Your task to perform on an android device: stop showing notifications on the lock screen Image 0: 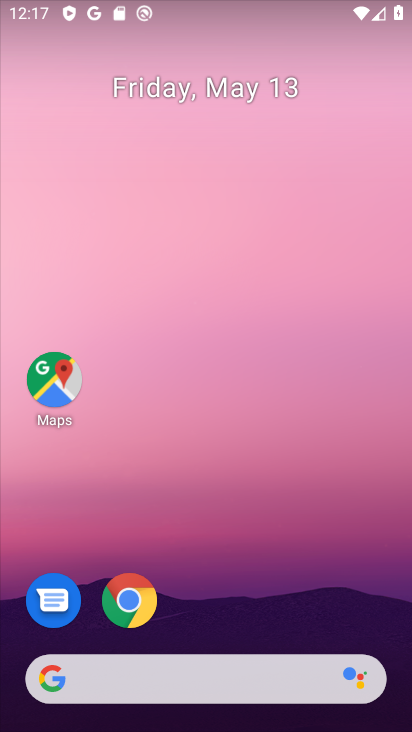
Step 0: drag from (187, 654) to (236, 112)
Your task to perform on an android device: stop showing notifications on the lock screen Image 1: 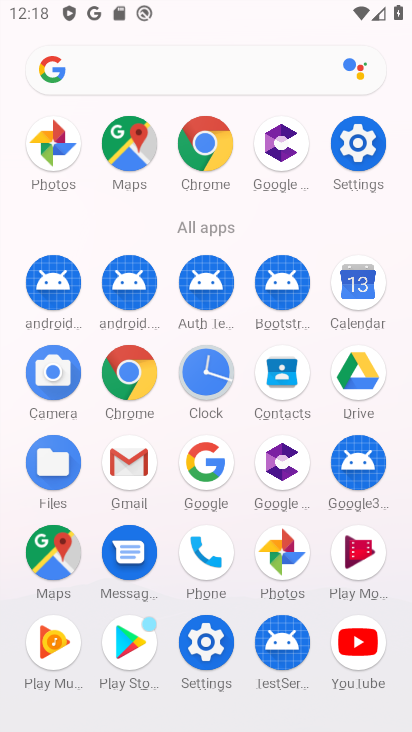
Step 1: click (351, 146)
Your task to perform on an android device: stop showing notifications on the lock screen Image 2: 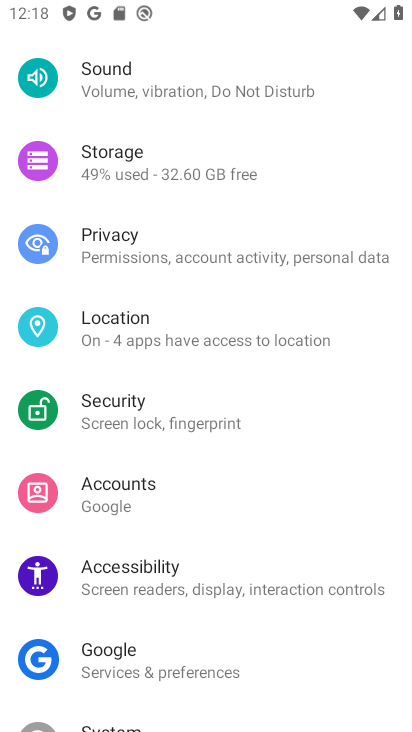
Step 2: drag from (179, 557) to (214, 111)
Your task to perform on an android device: stop showing notifications on the lock screen Image 3: 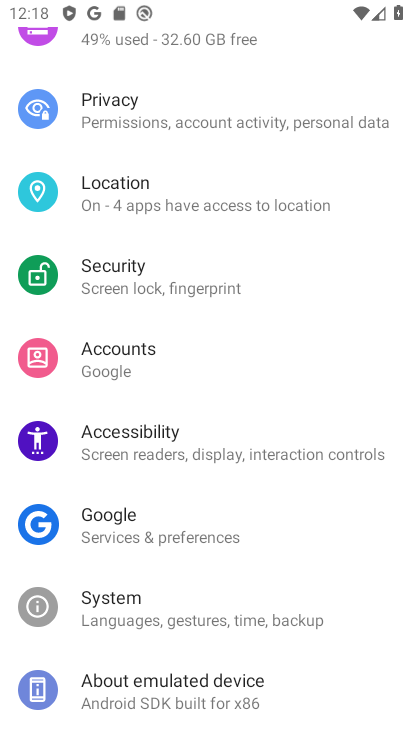
Step 3: drag from (170, 665) to (179, 236)
Your task to perform on an android device: stop showing notifications on the lock screen Image 4: 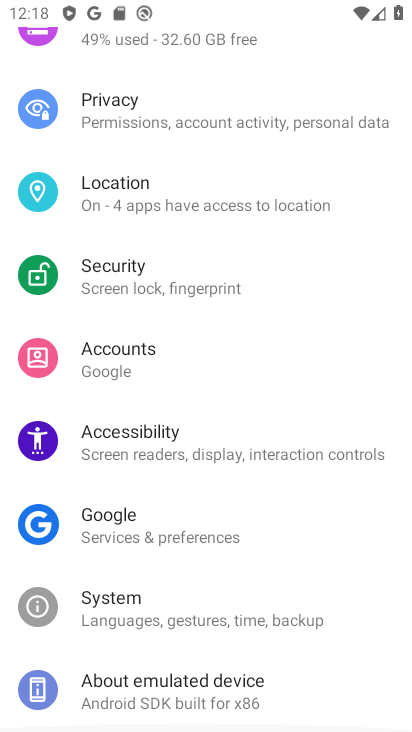
Step 4: drag from (171, 235) to (232, 723)
Your task to perform on an android device: stop showing notifications on the lock screen Image 5: 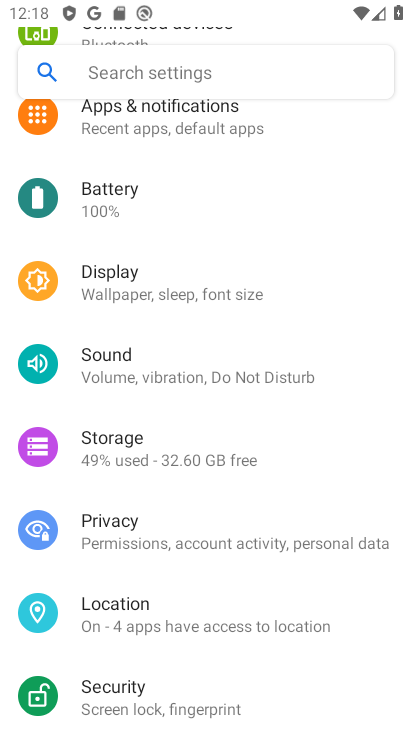
Step 5: click (177, 111)
Your task to perform on an android device: stop showing notifications on the lock screen Image 6: 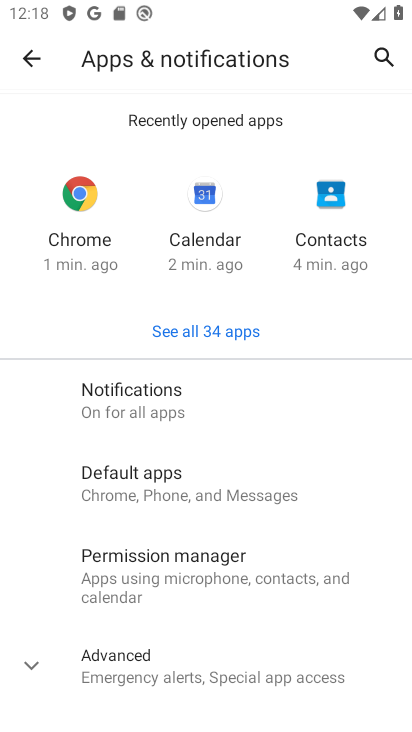
Step 6: click (158, 382)
Your task to perform on an android device: stop showing notifications on the lock screen Image 7: 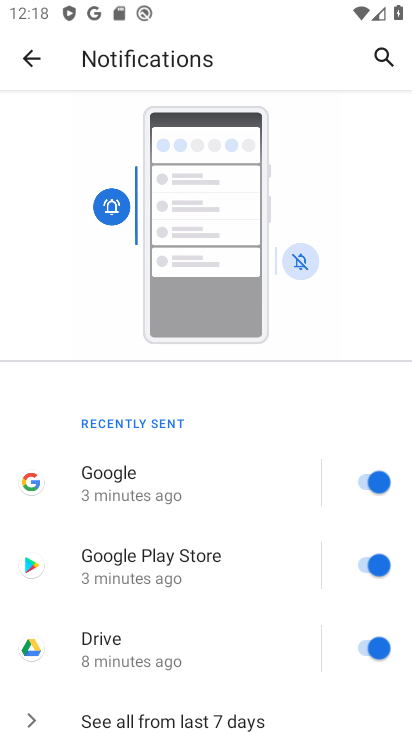
Step 7: drag from (199, 647) to (197, 110)
Your task to perform on an android device: stop showing notifications on the lock screen Image 8: 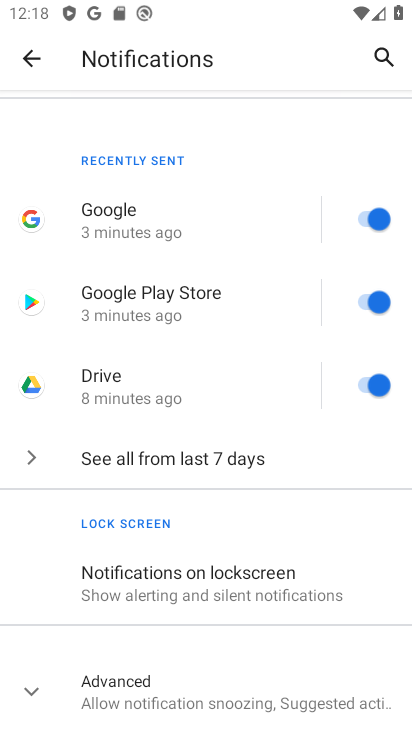
Step 8: drag from (209, 576) to (185, 188)
Your task to perform on an android device: stop showing notifications on the lock screen Image 9: 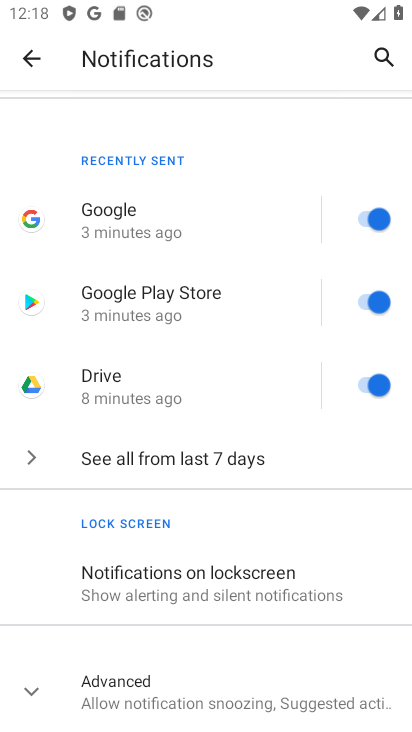
Step 9: click (177, 600)
Your task to perform on an android device: stop showing notifications on the lock screen Image 10: 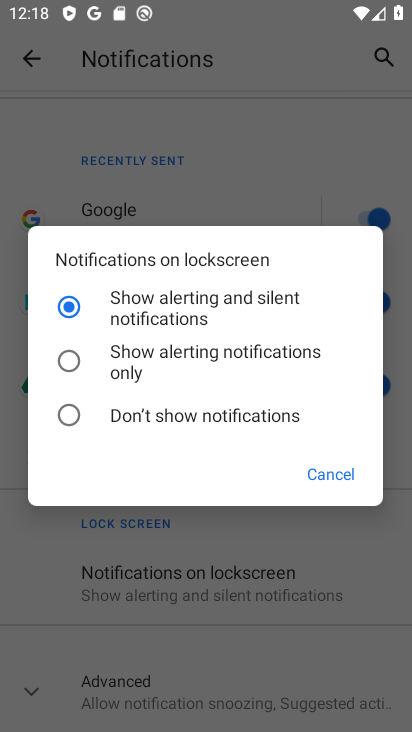
Step 10: click (142, 360)
Your task to perform on an android device: stop showing notifications on the lock screen Image 11: 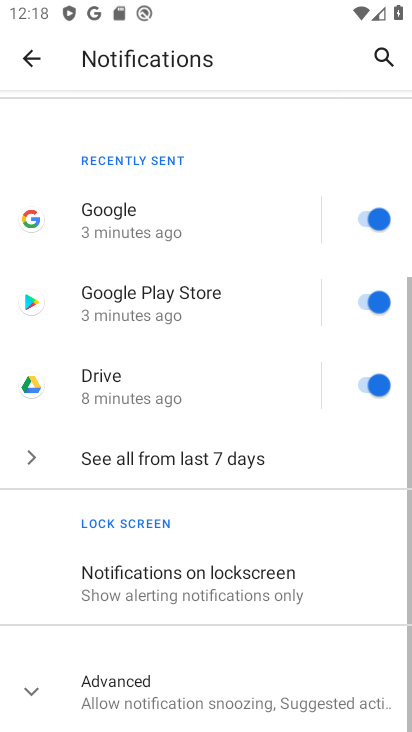
Step 11: task complete